Your task to perform on an android device: check data usage Image 0: 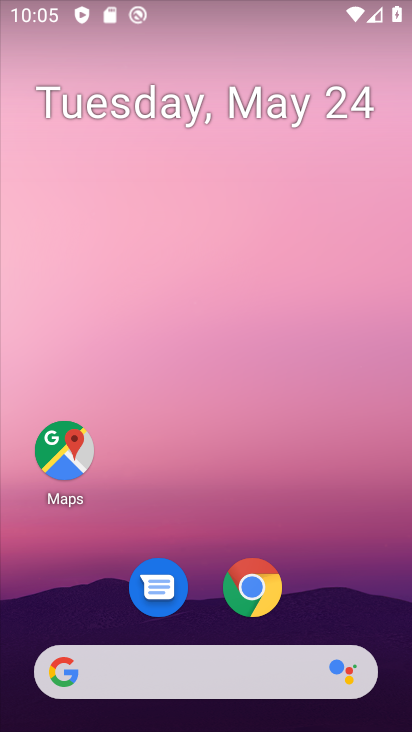
Step 0: press home button
Your task to perform on an android device: check data usage Image 1: 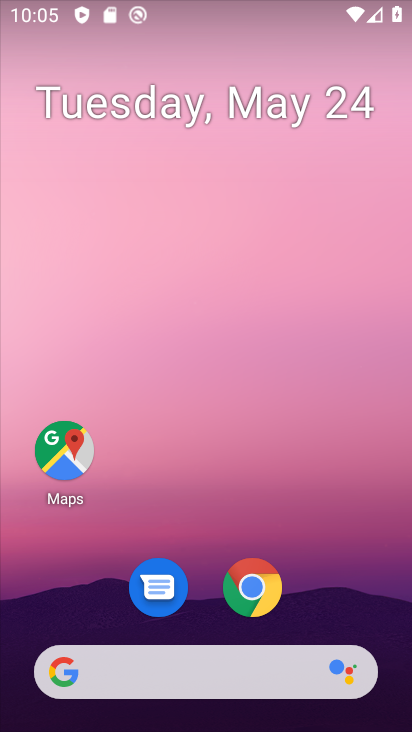
Step 1: drag from (223, 0) to (105, 731)
Your task to perform on an android device: check data usage Image 2: 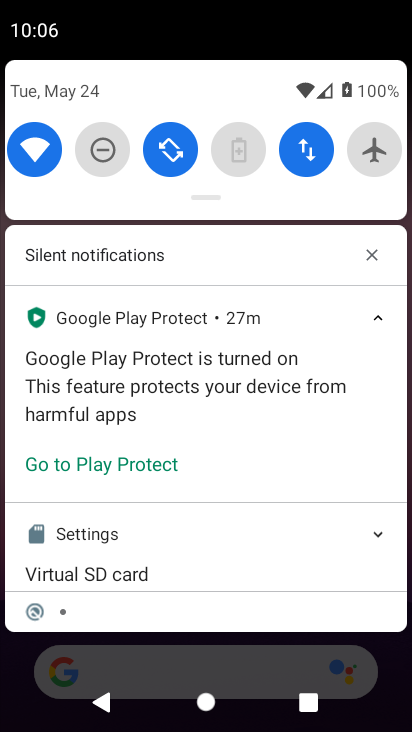
Step 2: click (301, 153)
Your task to perform on an android device: check data usage Image 3: 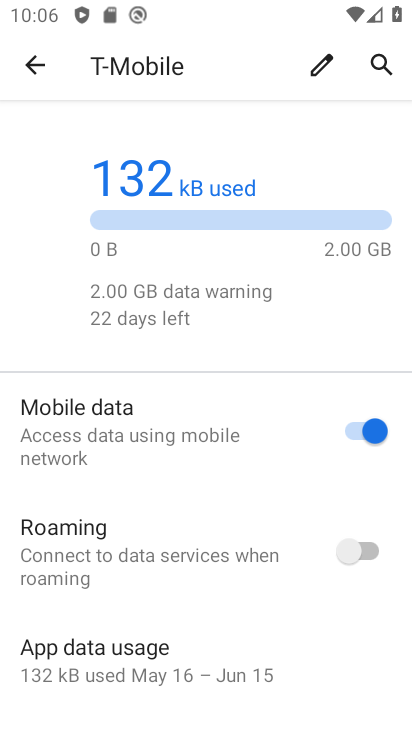
Step 3: task complete